Your task to perform on an android device: Search for Italian restaurants on Maps Image 0: 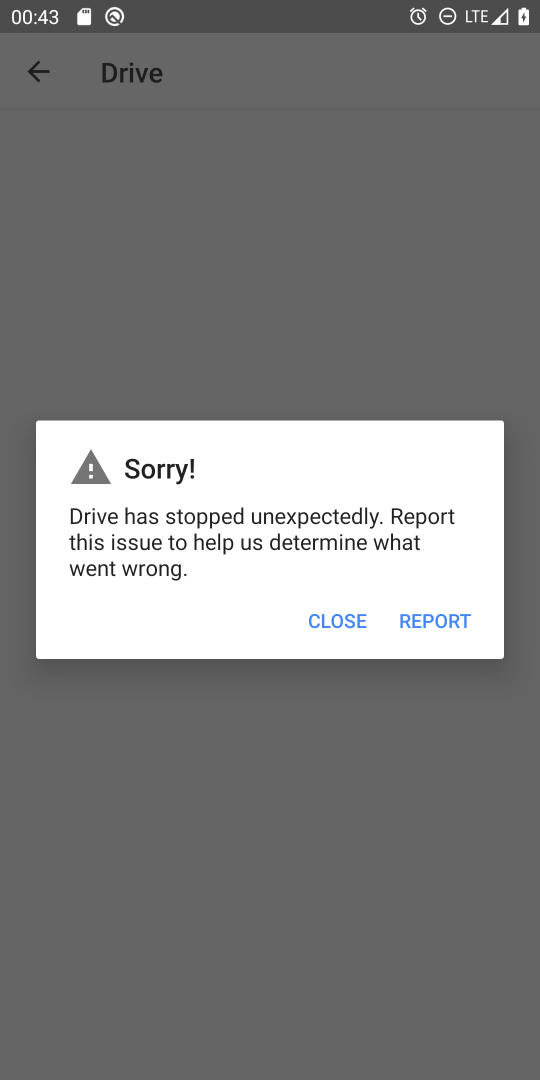
Step 0: press home button
Your task to perform on an android device: Search for Italian restaurants on Maps Image 1: 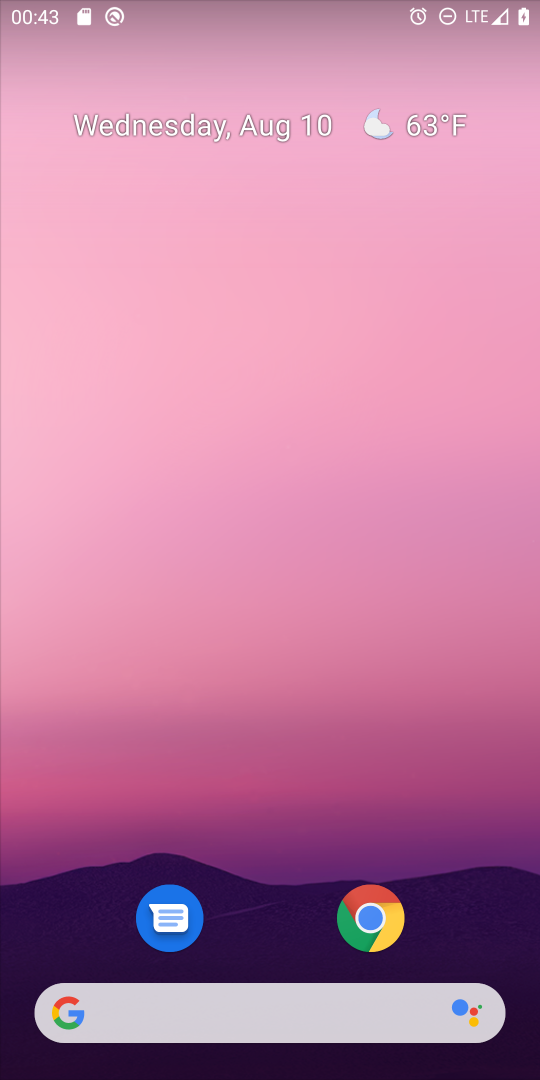
Step 1: drag from (460, 880) to (450, 128)
Your task to perform on an android device: Search for Italian restaurants on Maps Image 2: 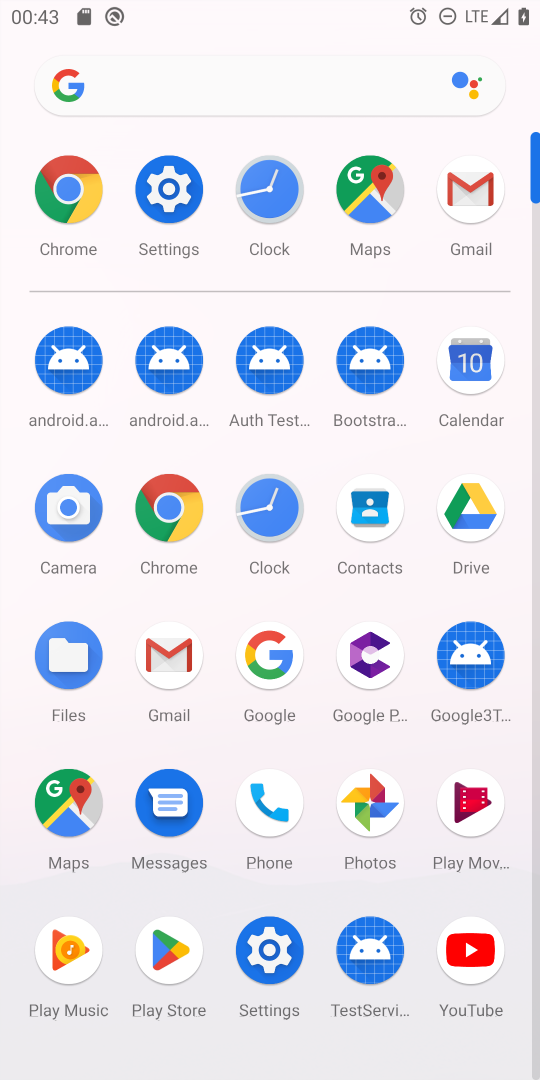
Step 2: click (72, 806)
Your task to perform on an android device: Search for Italian restaurants on Maps Image 3: 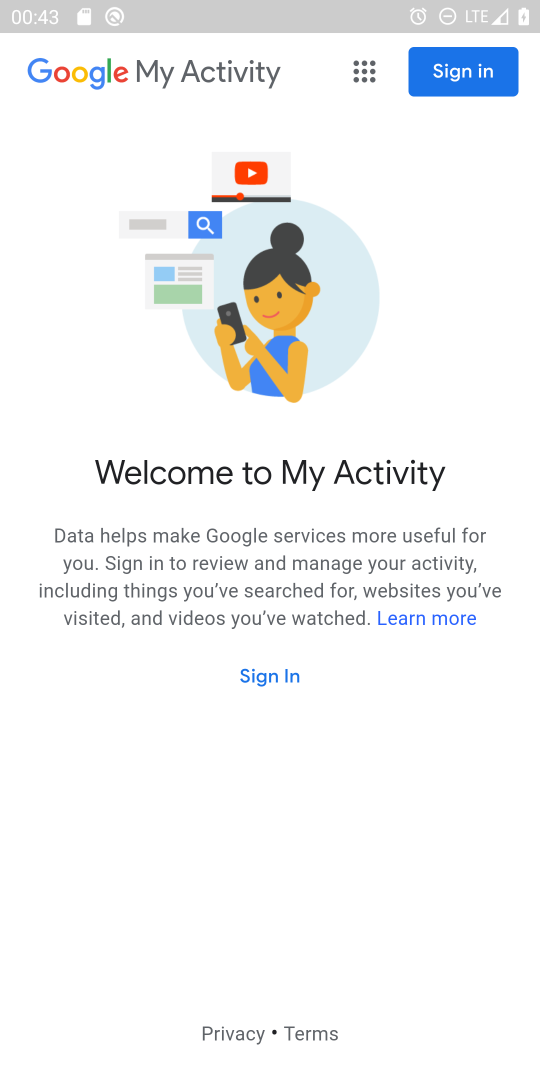
Step 3: press back button
Your task to perform on an android device: Search for Italian restaurants on Maps Image 4: 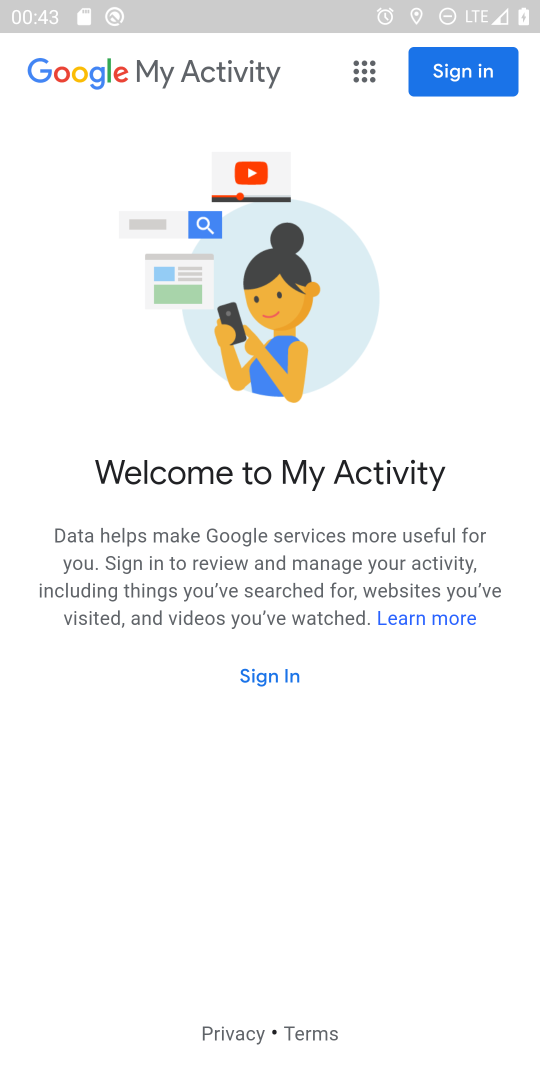
Step 4: press back button
Your task to perform on an android device: Search for Italian restaurants on Maps Image 5: 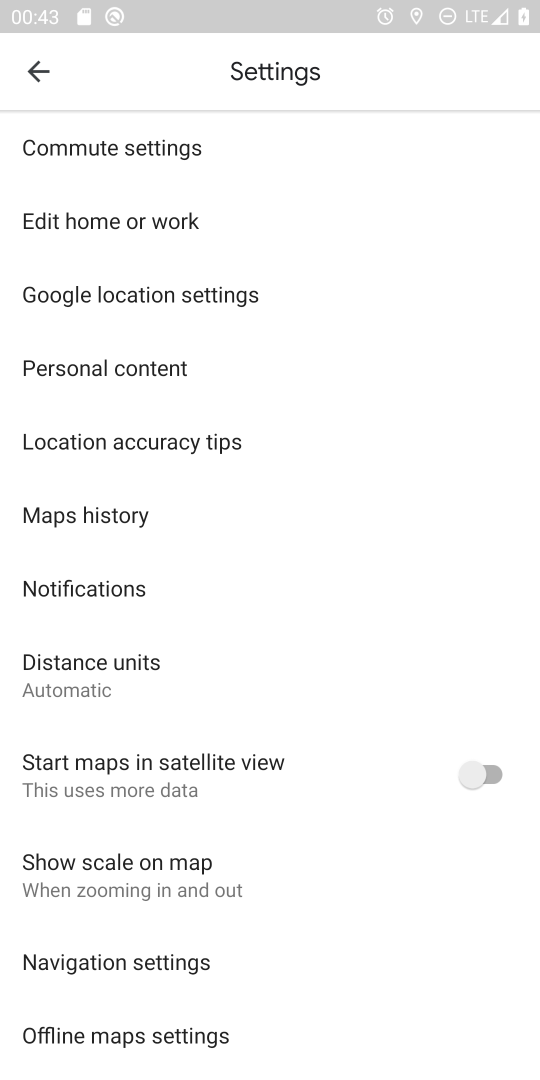
Step 5: press back button
Your task to perform on an android device: Search for Italian restaurants on Maps Image 6: 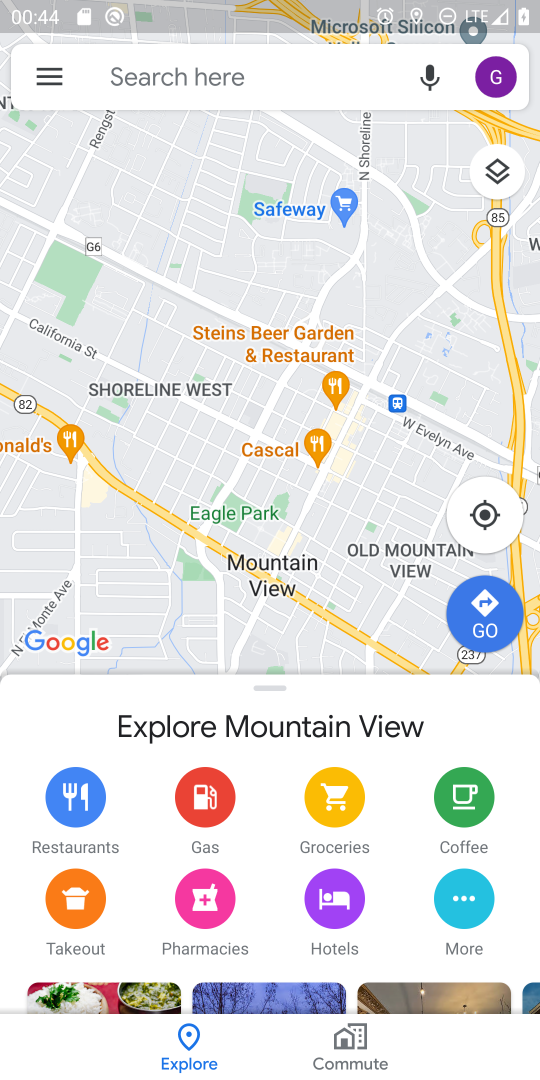
Step 6: click (252, 95)
Your task to perform on an android device: Search for Italian restaurants on Maps Image 7: 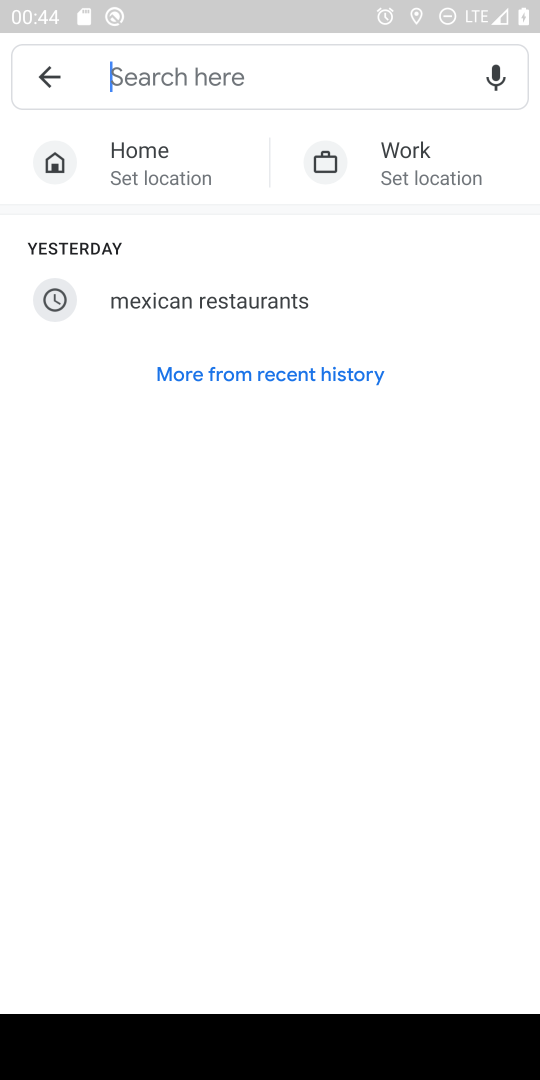
Step 7: type "Italian restaurants"
Your task to perform on an android device: Search for Italian restaurants on Maps Image 8: 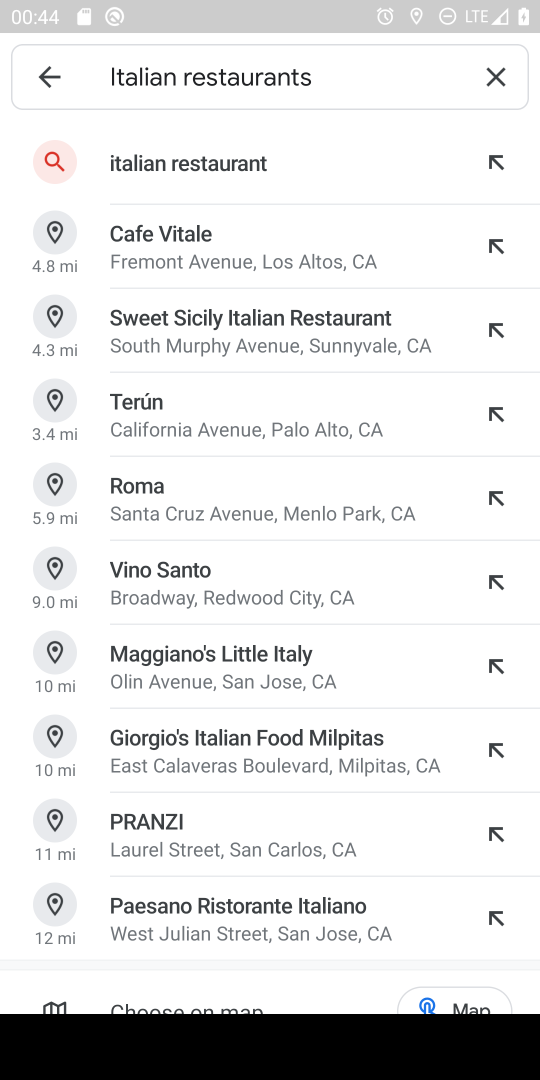
Step 8: press enter
Your task to perform on an android device: Search for Italian restaurants on Maps Image 9: 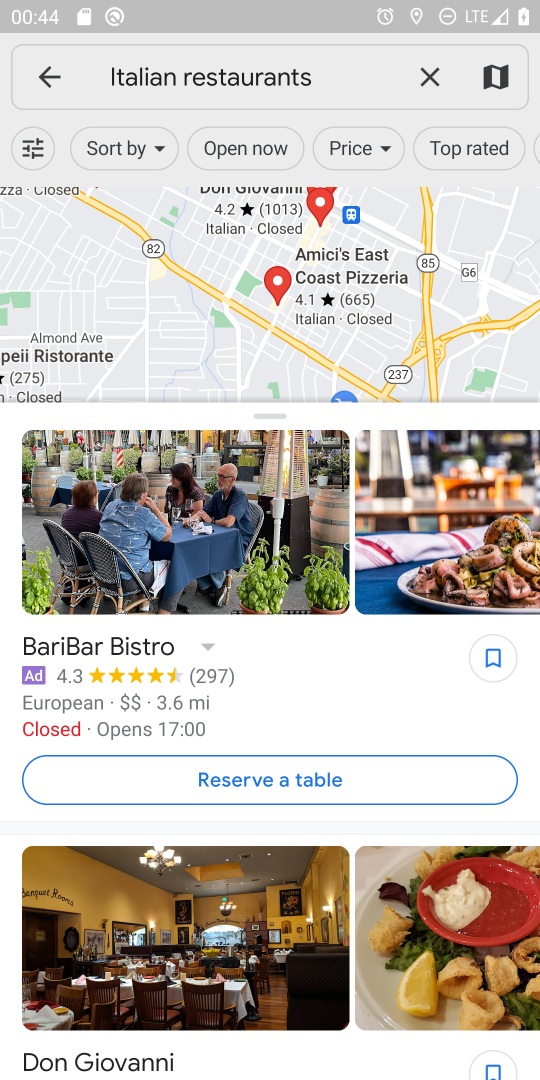
Step 9: task complete